Your task to perform on an android device: refresh tabs in the chrome app Image 0: 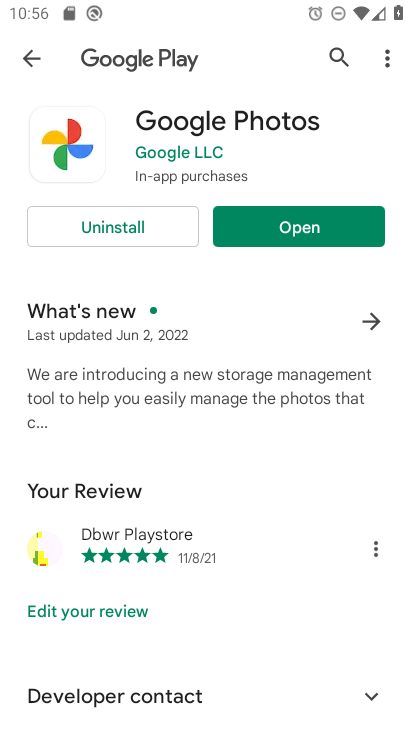
Step 0: press home button
Your task to perform on an android device: refresh tabs in the chrome app Image 1: 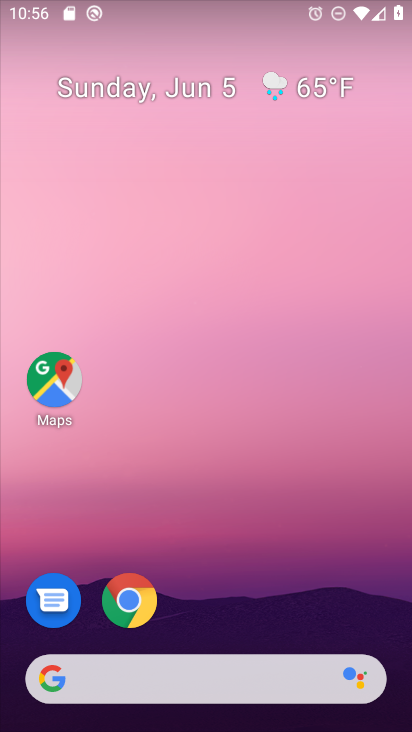
Step 1: drag from (397, 603) to (306, 0)
Your task to perform on an android device: refresh tabs in the chrome app Image 2: 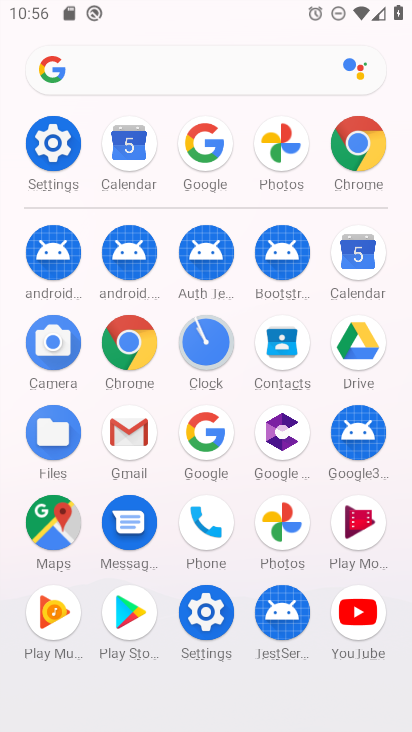
Step 2: click (343, 145)
Your task to perform on an android device: refresh tabs in the chrome app Image 3: 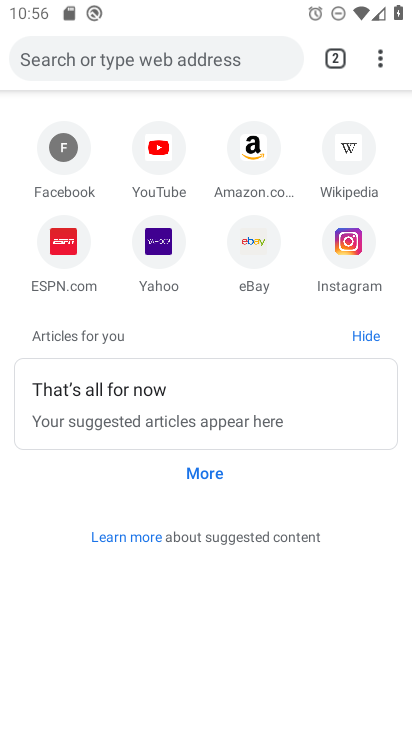
Step 3: click (381, 54)
Your task to perform on an android device: refresh tabs in the chrome app Image 4: 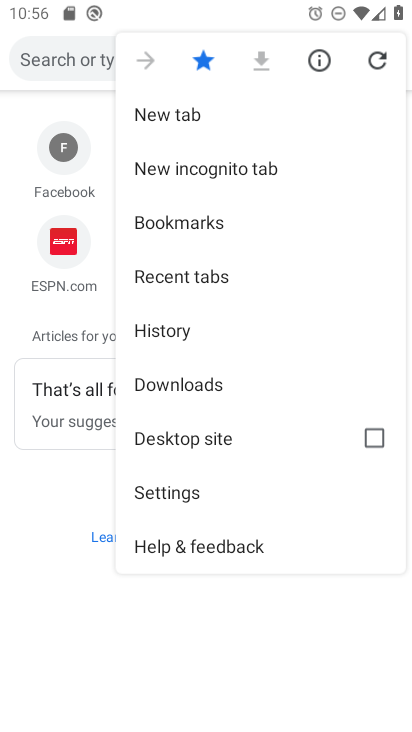
Step 4: click (381, 54)
Your task to perform on an android device: refresh tabs in the chrome app Image 5: 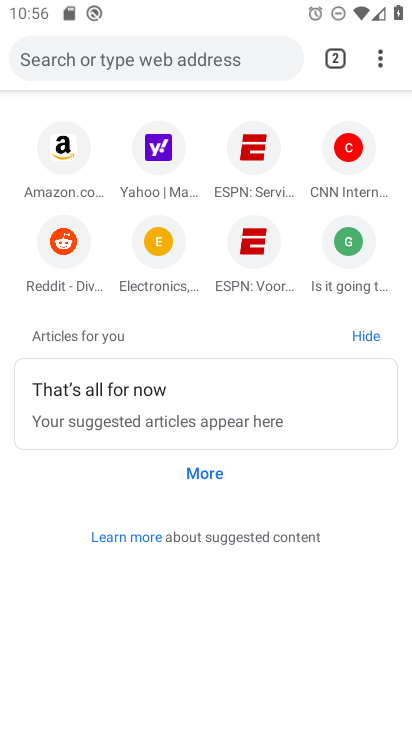
Step 5: task complete